Your task to perform on an android device: turn on bluetooth scan Image 0: 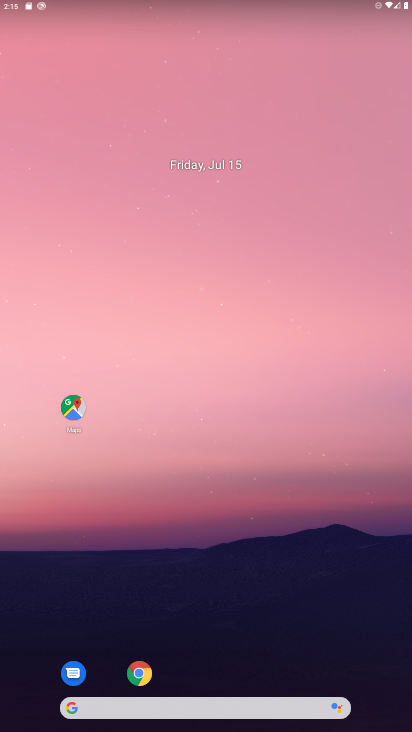
Step 0: drag from (174, 638) to (181, 305)
Your task to perform on an android device: turn on bluetooth scan Image 1: 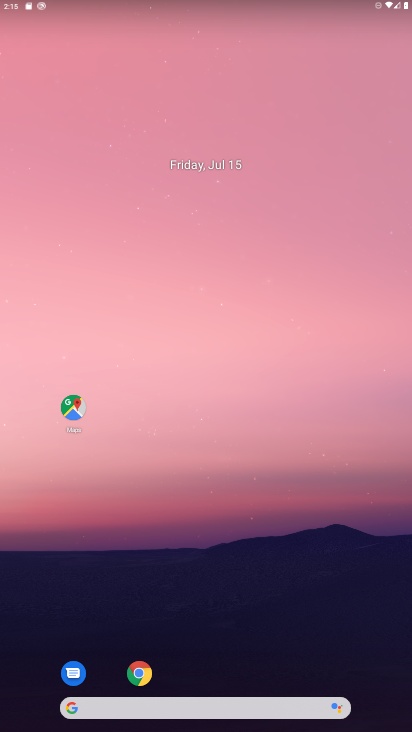
Step 1: drag from (196, 683) to (221, 168)
Your task to perform on an android device: turn on bluetooth scan Image 2: 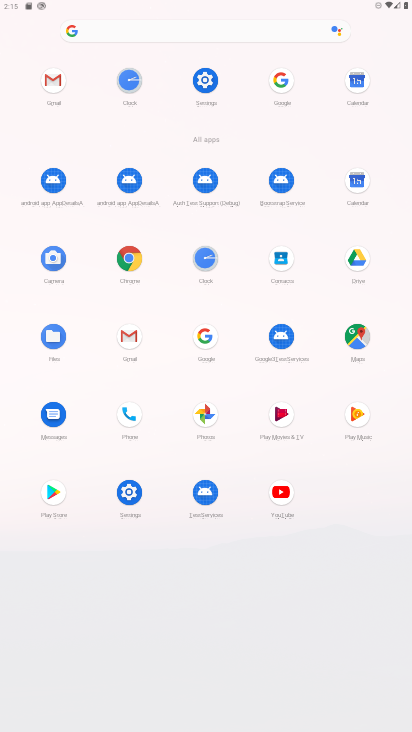
Step 2: click (210, 83)
Your task to perform on an android device: turn on bluetooth scan Image 3: 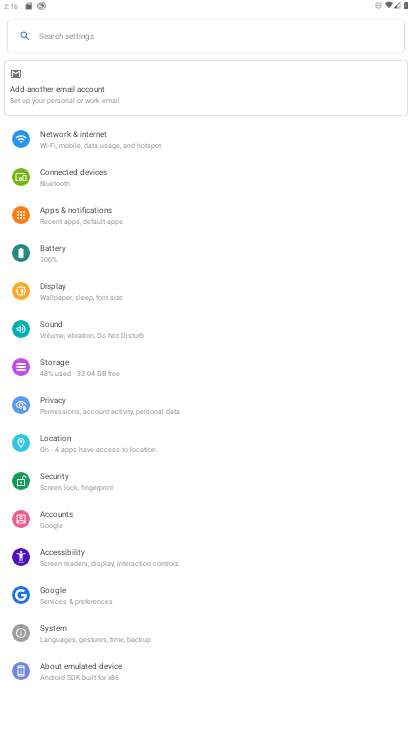
Step 3: click (64, 444)
Your task to perform on an android device: turn on bluetooth scan Image 4: 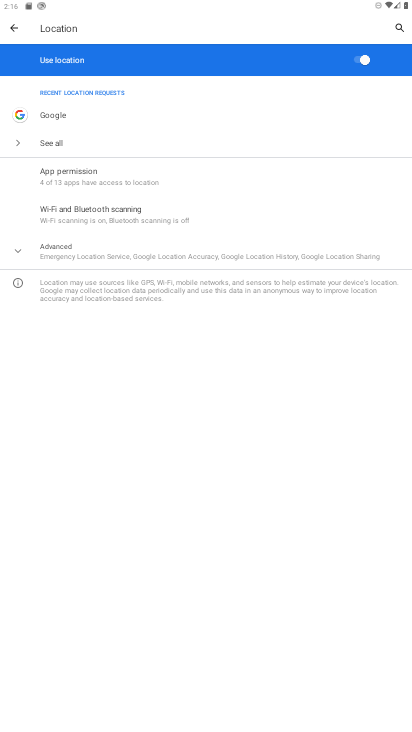
Step 4: click (54, 242)
Your task to perform on an android device: turn on bluetooth scan Image 5: 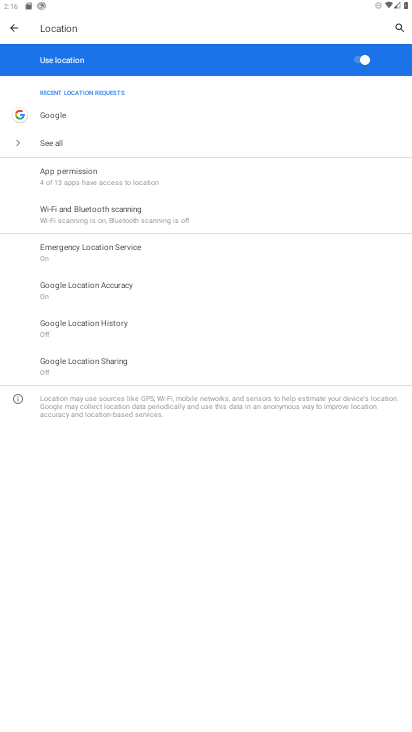
Step 5: click (81, 197)
Your task to perform on an android device: turn on bluetooth scan Image 6: 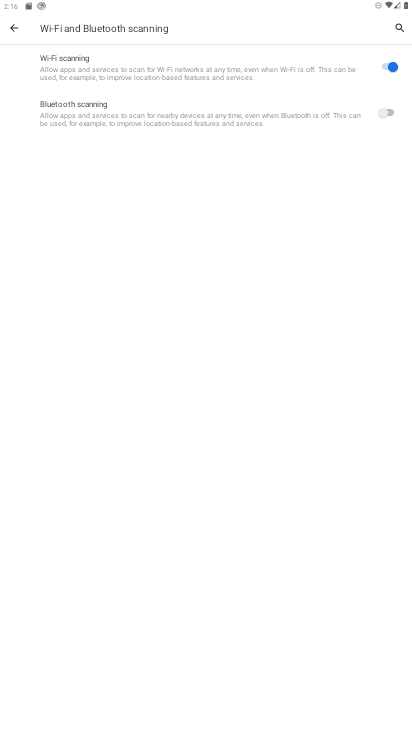
Step 6: click (384, 113)
Your task to perform on an android device: turn on bluetooth scan Image 7: 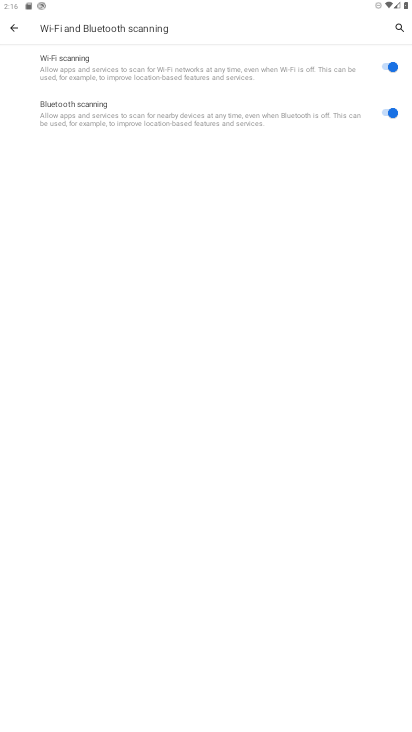
Step 7: task complete